Your task to perform on an android device: turn off improve location accuracy Image 0: 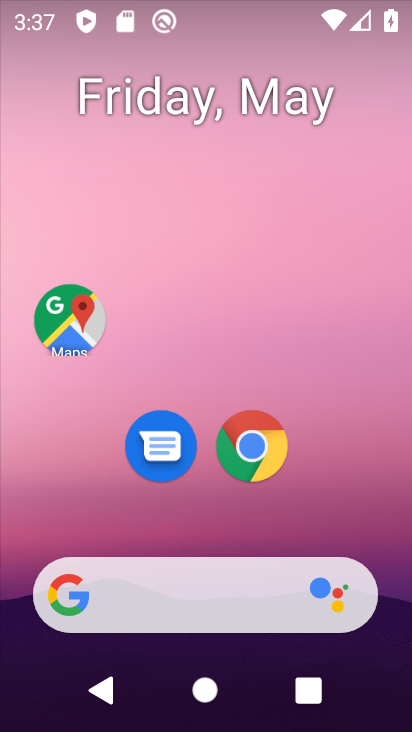
Step 0: drag from (392, 170) to (389, 20)
Your task to perform on an android device: turn off improve location accuracy Image 1: 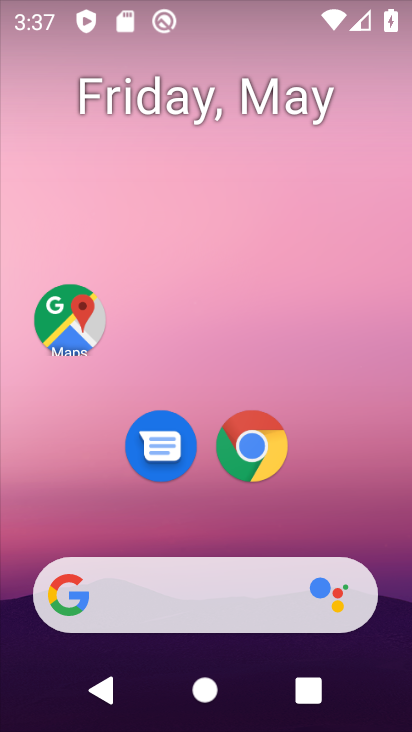
Step 1: drag from (341, 463) to (337, 10)
Your task to perform on an android device: turn off improve location accuracy Image 2: 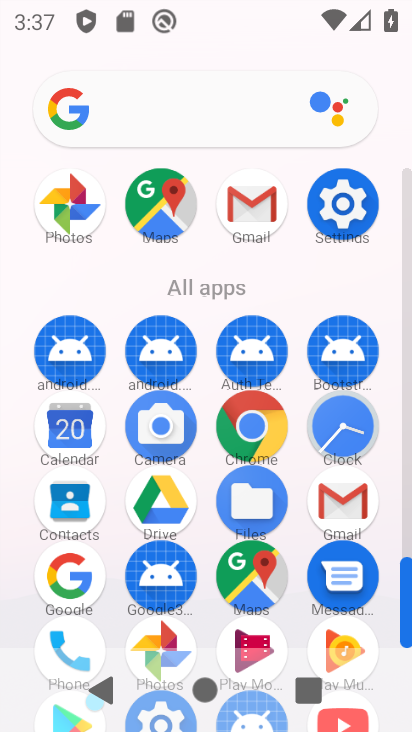
Step 2: drag from (401, 545) to (409, 197)
Your task to perform on an android device: turn off improve location accuracy Image 3: 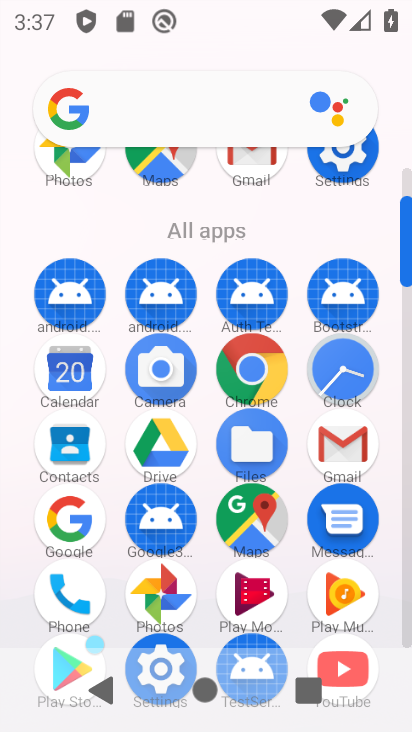
Step 3: drag from (387, 411) to (410, 521)
Your task to perform on an android device: turn off improve location accuracy Image 4: 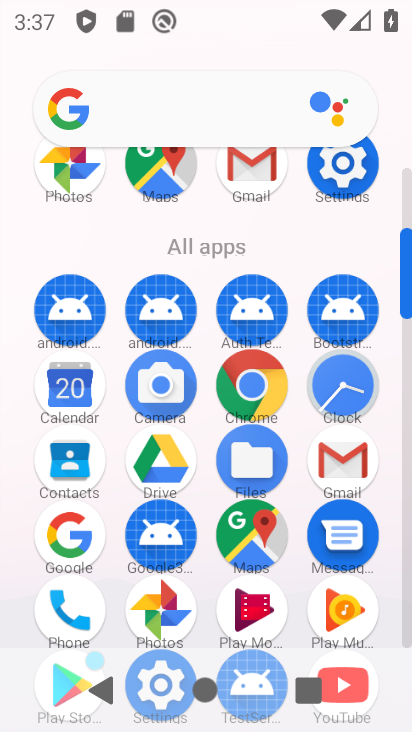
Step 4: click (329, 185)
Your task to perform on an android device: turn off improve location accuracy Image 5: 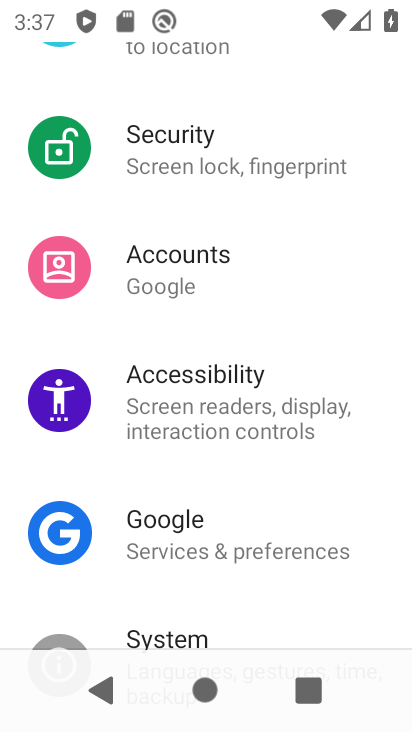
Step 5: drag from (226, 313) to (235, 646)
Your task to perform on an android device: turn off improve location accuracy Image 6: 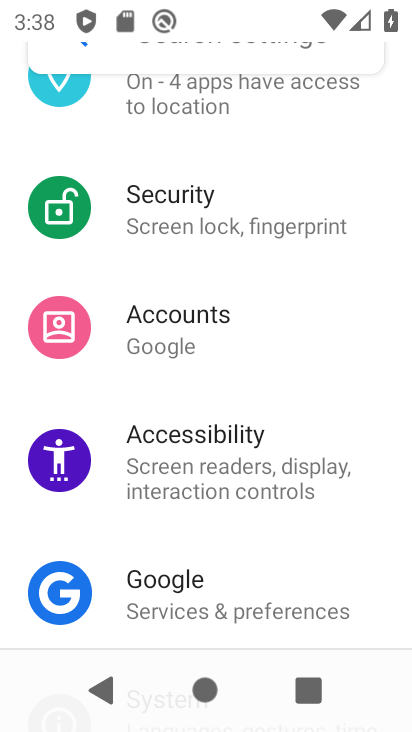
Step 6: drag from (253, 540) to (288, 143)
Your task to perform on an android device: turn off improve location accuracy Image 7: 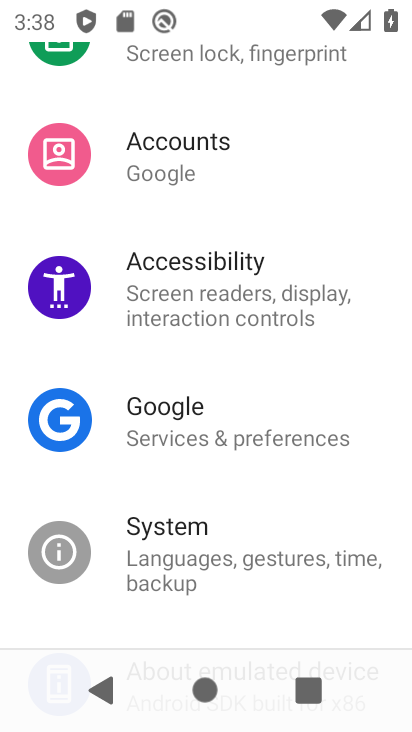
Step 7: drag from (273, 227) to (301, 649)
Your task to perform on an android device: turn off improve location accuracy Image 8: 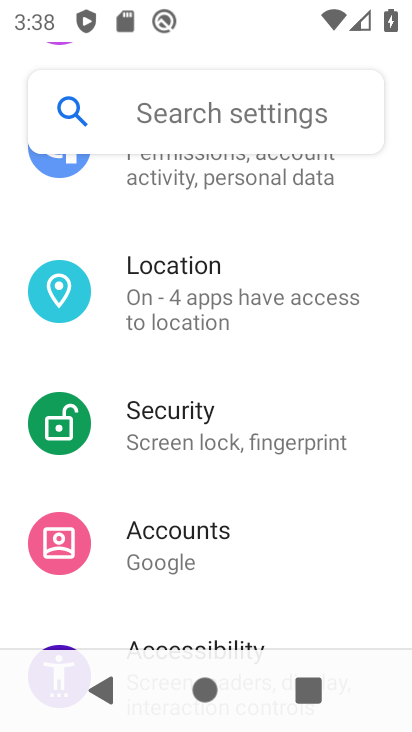
Step 8: drag from (290, 284) to (301, 679)
Your task to perform on an android device: turn off improve location accuracy Image 9: 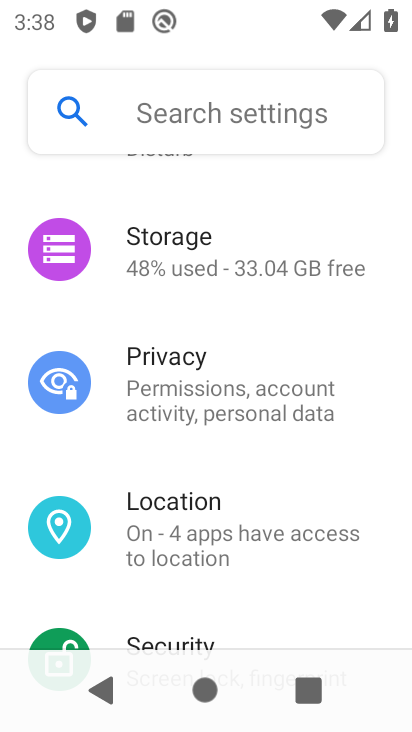
Step 9: drag from (268, 272) to (281, 617)
Your task to perform on an android device: turn off improve location accuracy Image 10: 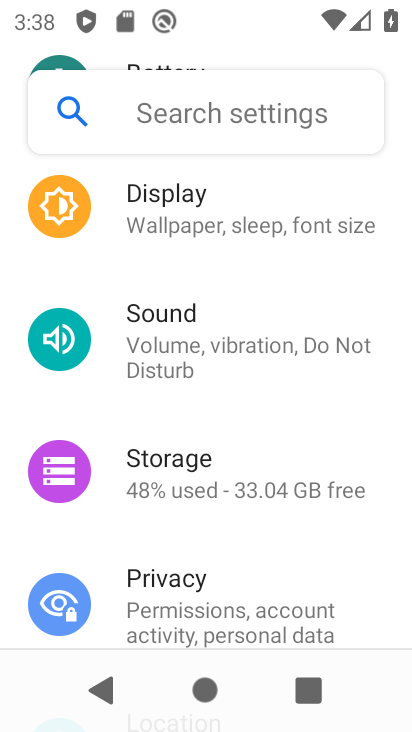
Step 10: drag from (250, 252) to (236, 631)
Your task to perform on an android device: turn off improve location accuracy Image 11: 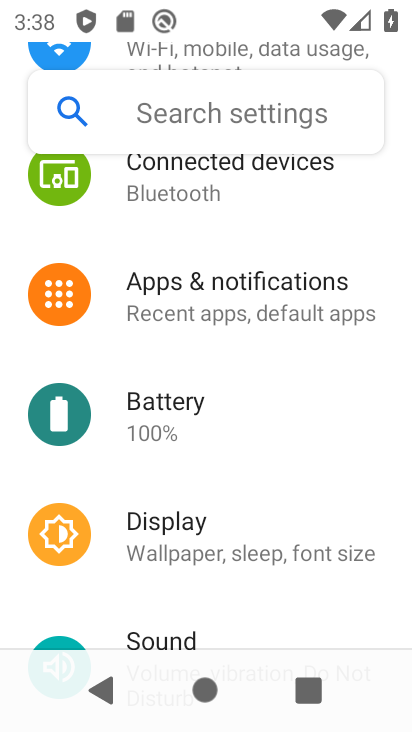
Step 11: drag from (281, 200) to (285, 608)
Your task to perform on an android device: turn off improve location accuracy Image 12: 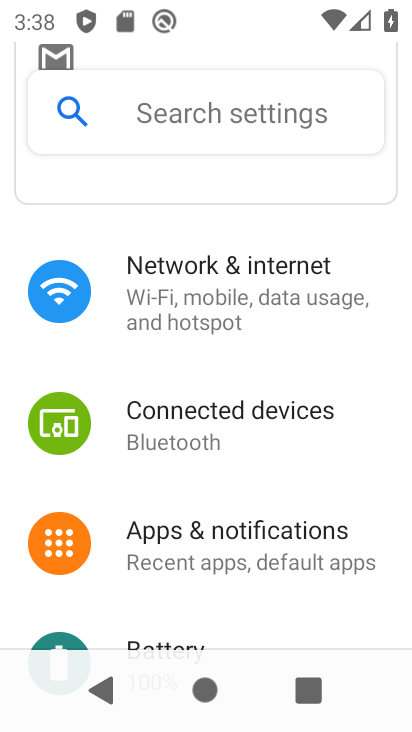
Step 12: drag from (290, 598) to (317, 185)
Your task to perform on an android device: turn off improve location accuracy Image 13: 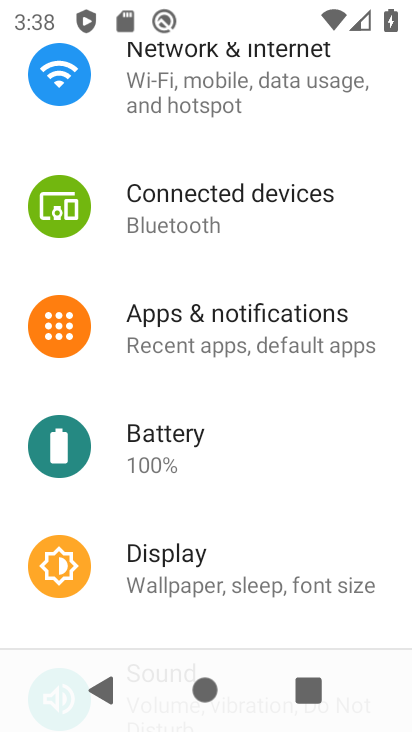
Step 13: drag from (304, 538) to (326, 107)
Your task to perform on an android device: turn off improve location accuracy Image 14: 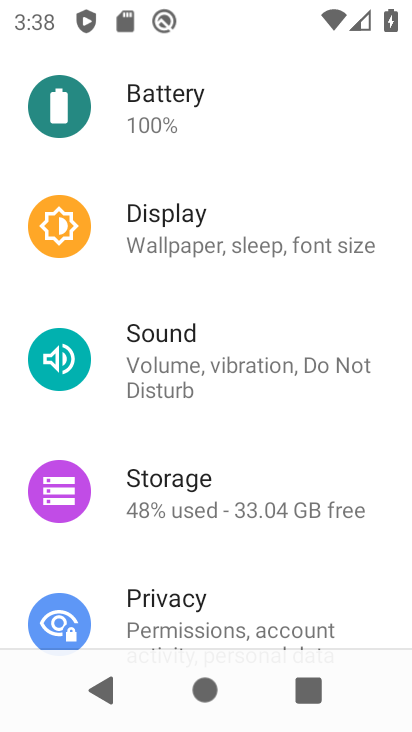
Step 14: drag from (288, 588) to (350, 95)
Your task to perform on an android device: turn off improve location accuracy Image 15: 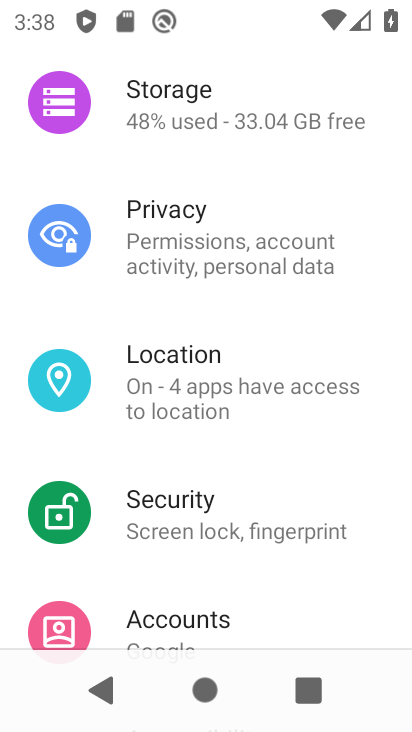
Step 15: click (220, 361)
Your task to perform on an android device: turn off improve location accuracy Image 16: 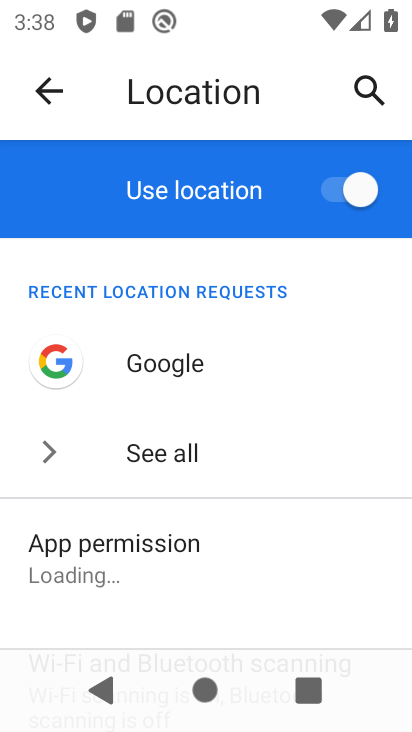
Step 16: drag from (187, 548) to (280, 143)
Your task to perform on an android device: turn off improve location accuracy Image 17: 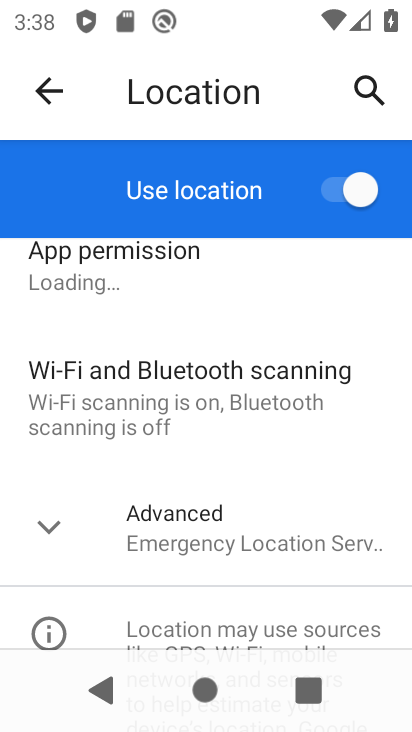
Step 17: click (225, 549)
Your task to perform on an android device: turn off improve location accuracy Image 18: 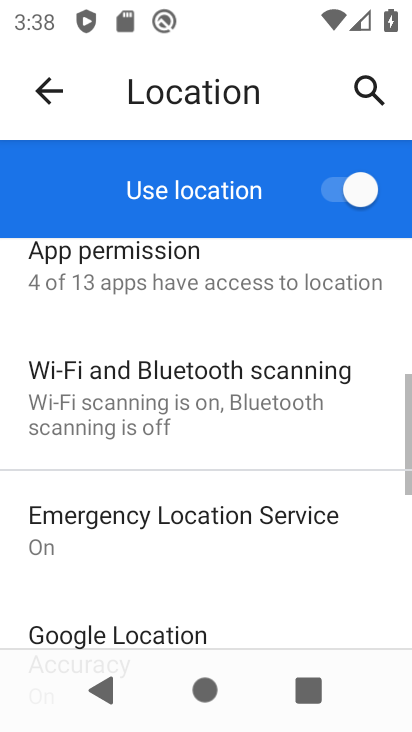
Step 18: drag from (232, 486) to (298, 164)
Your task to perform on an android device: turn off improve location accuracy Image 19: 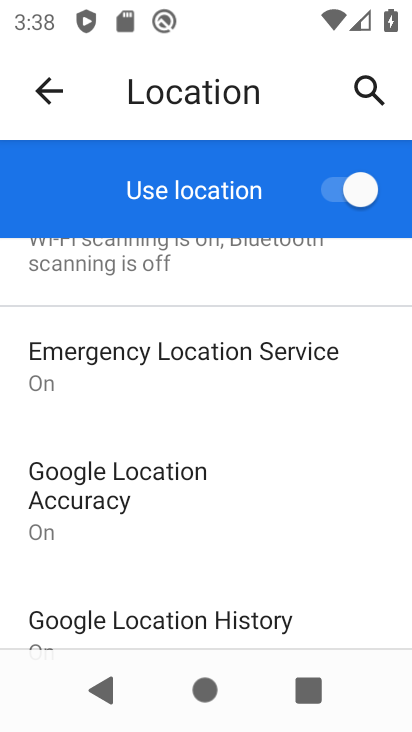
Step 19: drag from (249, 595) to (278, 357)
Your task to perform on an android device: turn off improve location accuracy Image 20: 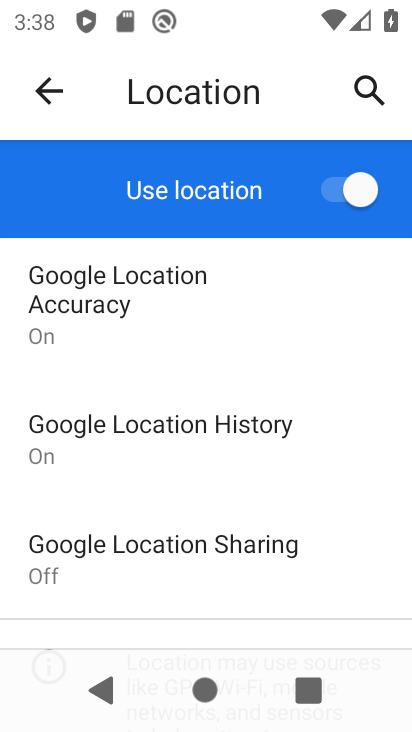
Step 20: click (134, 299)
Your task to perform on an android device: turn off improve location accuracy Image 21: 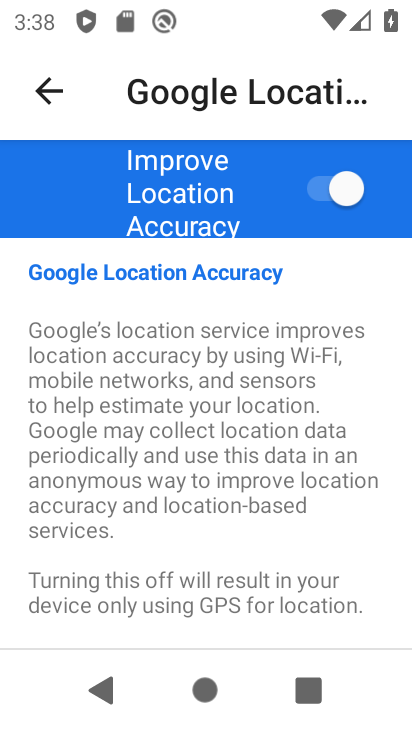
Step 21: click (321, 187)
Your task to perform on an android device: turn off improve location accuracy Image 22: 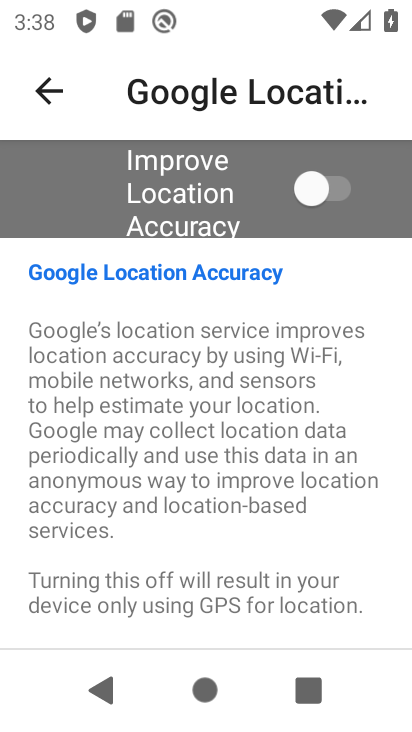
Step 22: task complete